Your task to perform on an android device: delete browsing data in the chrome app Image 0: 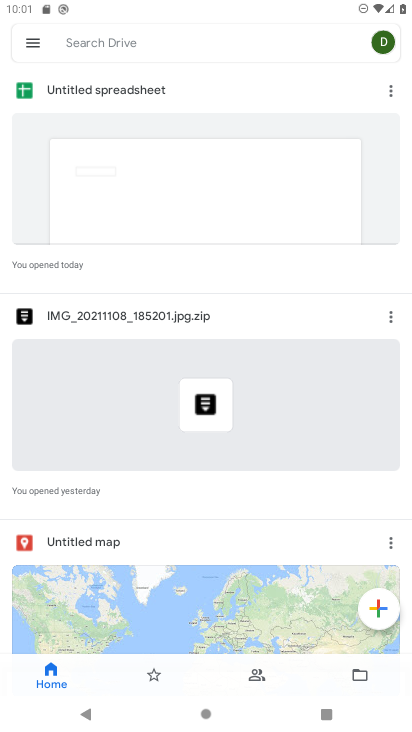
Step 0: press home button
Your task to perform on an android device: delete browsing data in the chrome app Image 1: 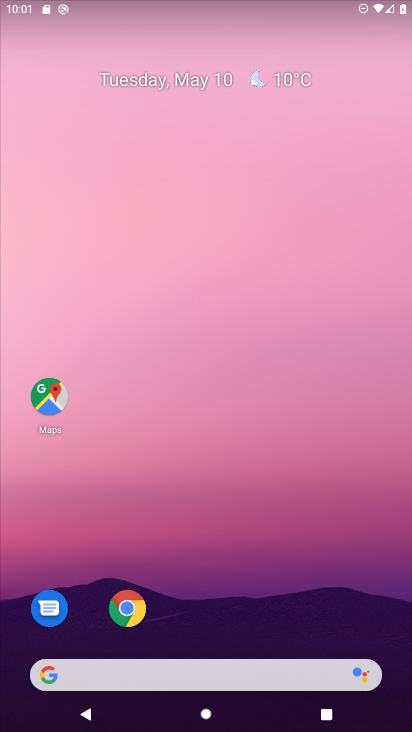
Step 1: drag from (345, 626) to (321, 87)
Your task to perform on an android device: delete browsing data in the chrome app Image 2: 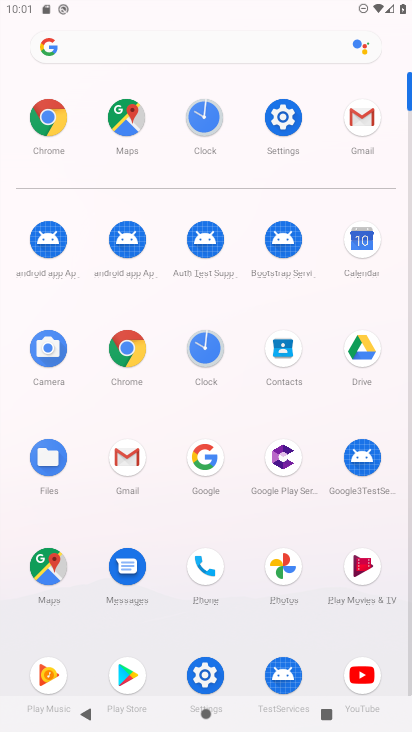
Step 2: click (129, 330)
Your task to perform on an android device: delete browsing data in the chrome app Image 3: 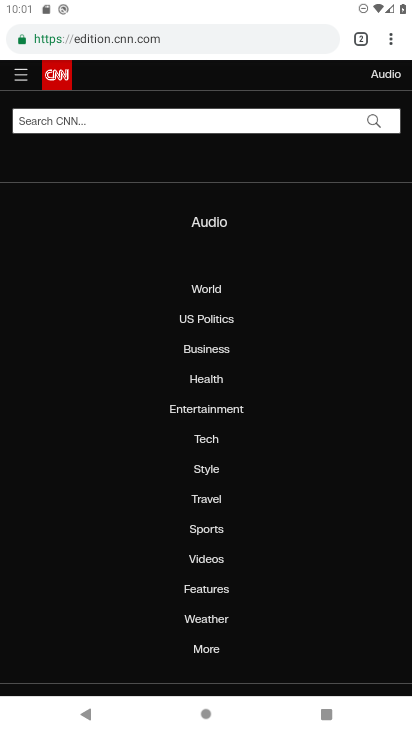
Step 3: press back button
Your task to perform on an android device: delete browsing data in the chrome app Image 4: 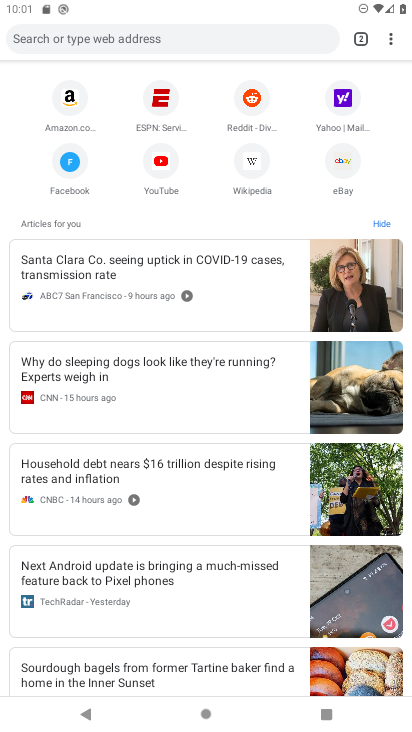
Step 4: click (391, 31)
Your task to perform on an android device: delete browsing data in the chrome app Image 5: 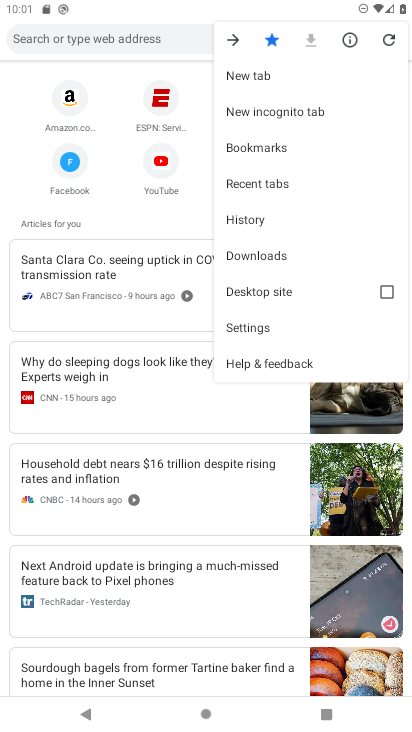
Step 5: click (273, 221)
Your task to perform on an android device: delete browsing data in the chrome app Image 6: 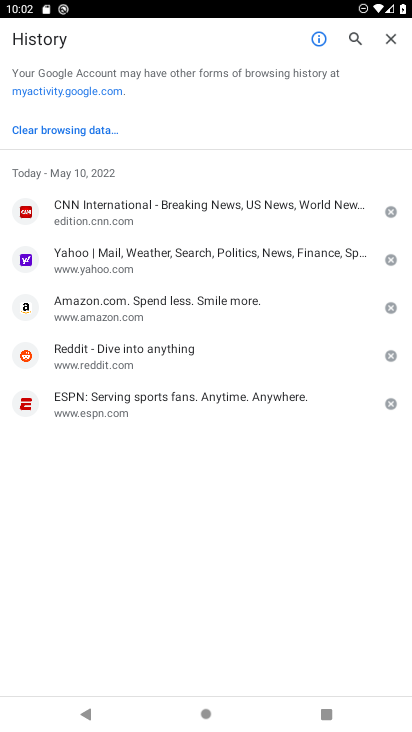
Step 6: click (85, 128)
Your task to perform on an android device: delete browsing data in the chrome app Image 7: 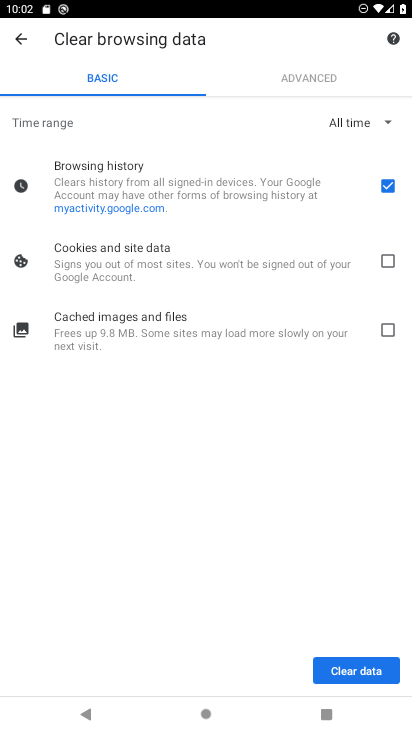
Step 7: click (363, 680)
Your task to perform on an android device: delete browsing data in the chrome app Image 8: 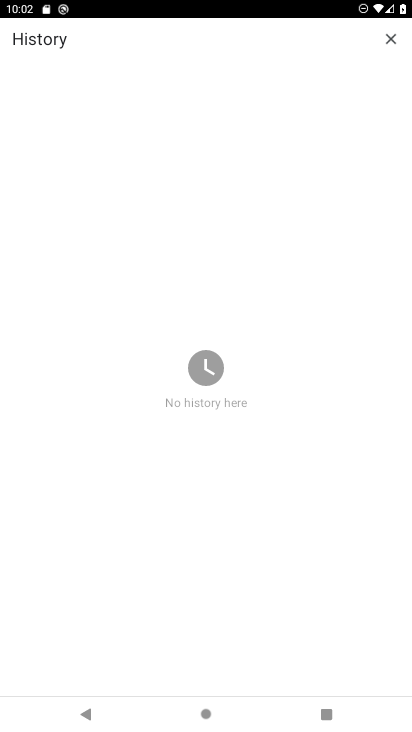
Step 8: task complete